Your task to perform on an android device: Open Maps and search for coffee Image 0: 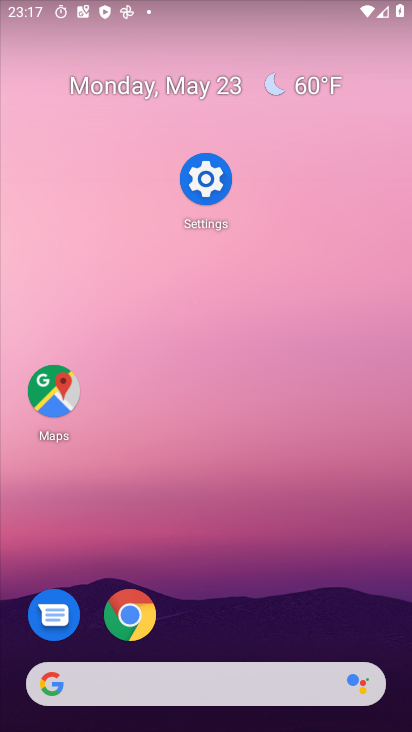
Step 0: click (60, 402)
Your task to perform on an android device: Open Maps and search for coffee Image 1: 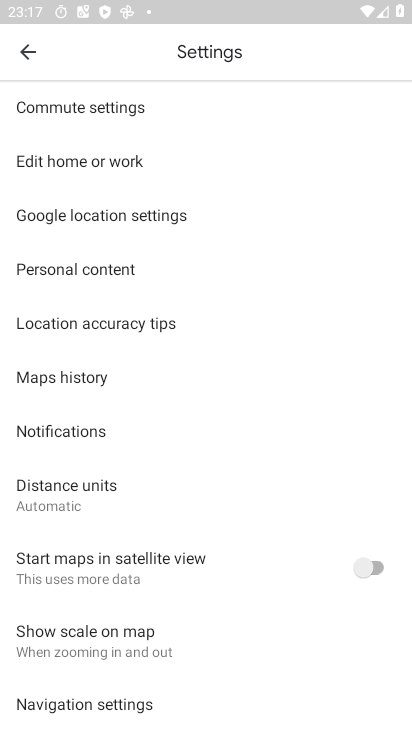
Step 1: press back button
Your task to perform on an android device: Open Maps and search for coffee Image 2: 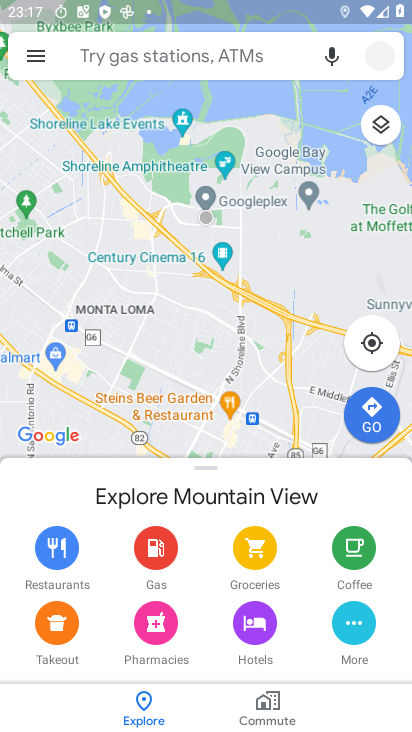
Step 2: click (200, 61)
Your task to perform on an android device: Open Maps and search for coffee Image 3: 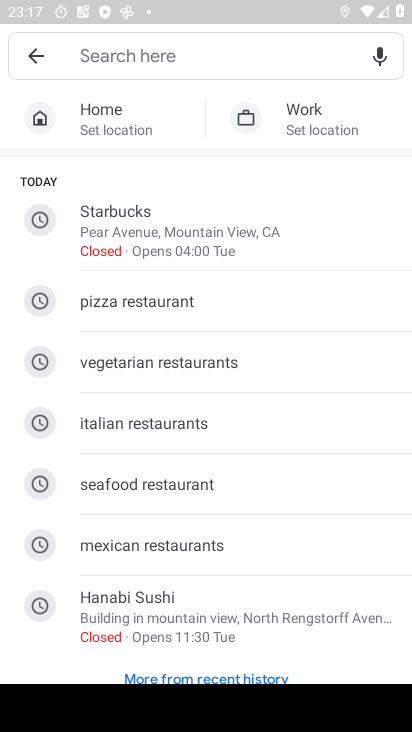
Step 3: type "coffee"
Your task to perform on an android device: Open Maps and search for coffee Image 4: 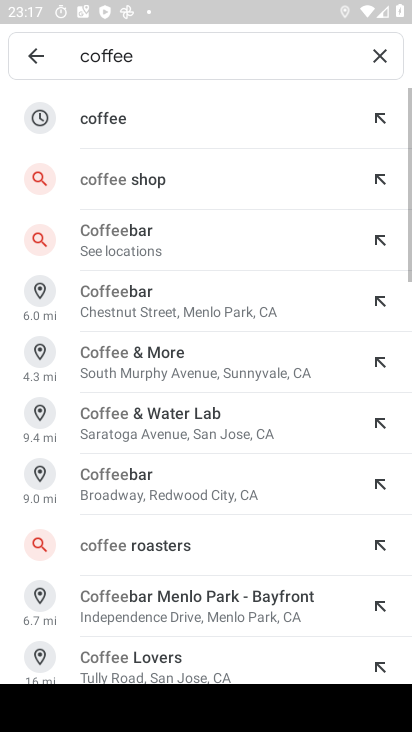
Step 4: click (118, 101)
Your task to perform on an android device: Open Maps and search for coffee Image 5: 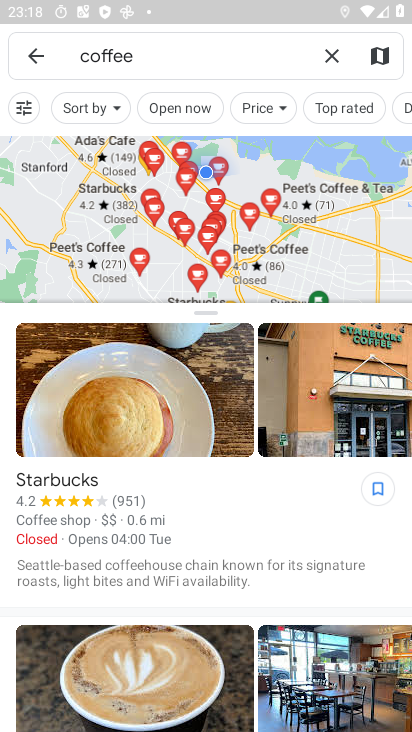
Step 5: task complete